Your task to perform on an android device: Show me the alarms in the clock app Image 0: 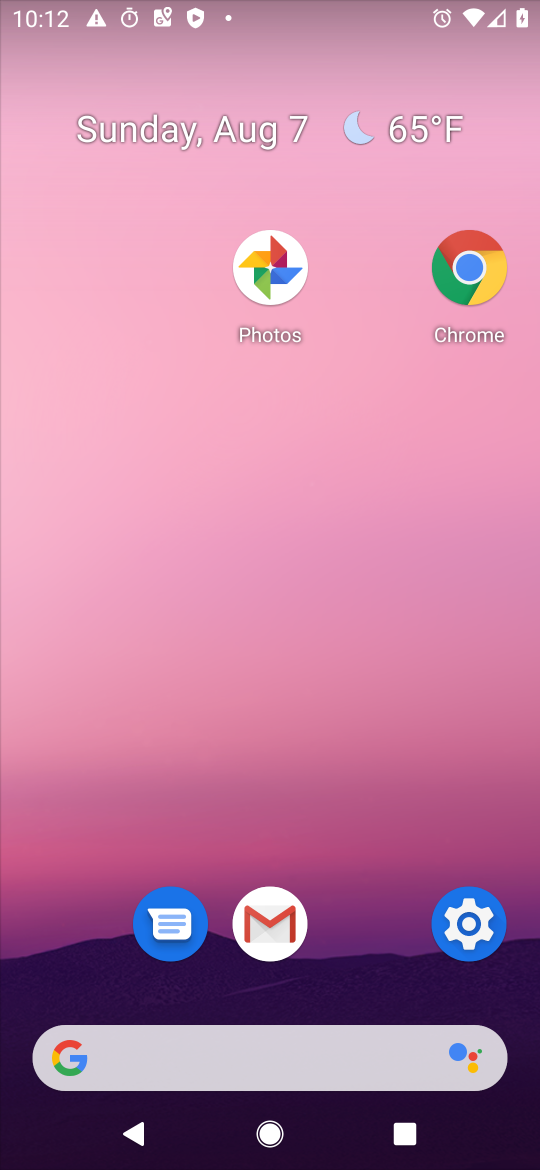
Step 0: press home button
Your task to perform on an android device: Show me the alarms in the clock app Image 1: 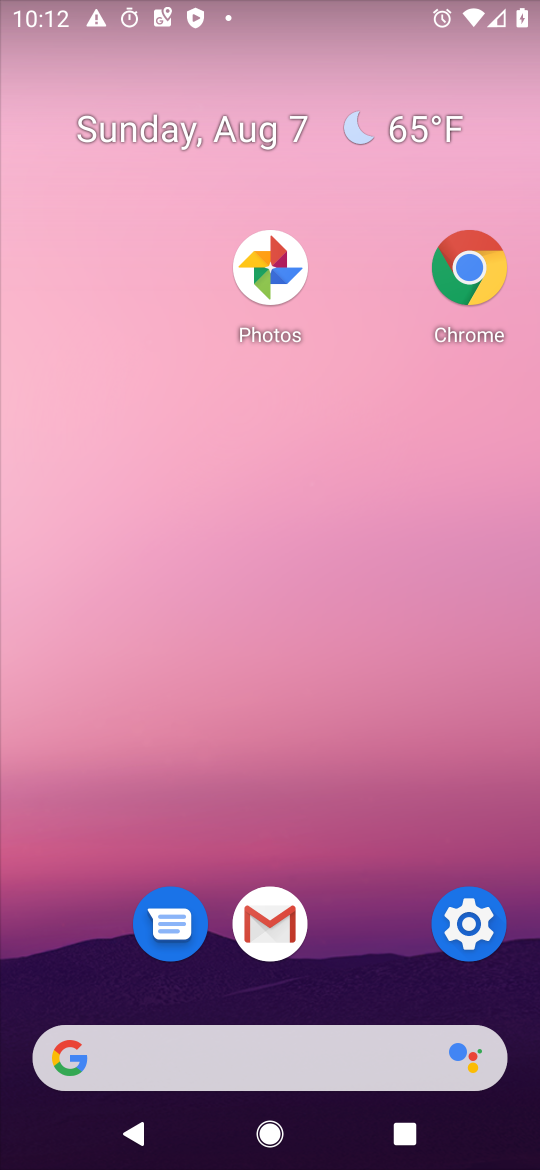
Step 1: drag from (359, 1005) to (323, 89)
Your task to perform on an android device: Show me the alarms in the clock app Image 2: 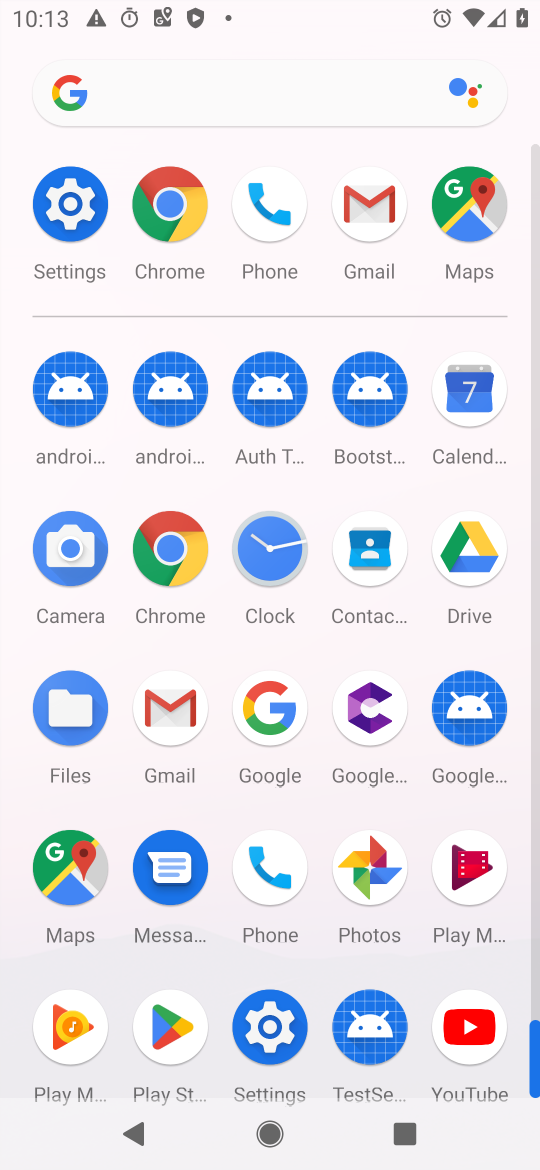
Step 2: click (275, 528)
Your task to perform on an android device: Show me the alarms in the clock app Image 3: 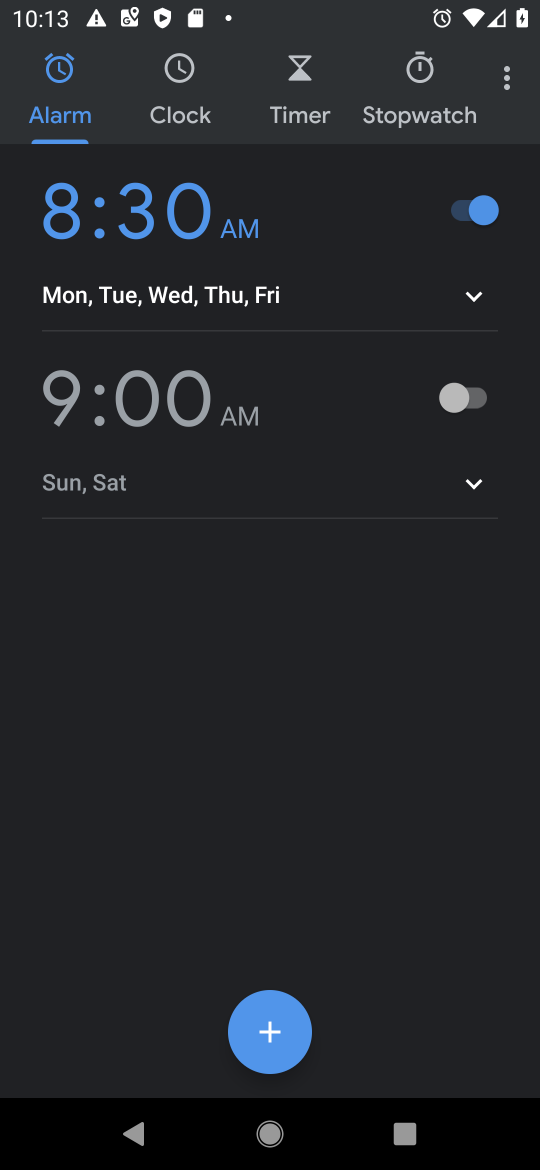
Step 3: click (465, 412)
Your task to perform on an android device: Show me the alarms in the clock app Image 4: 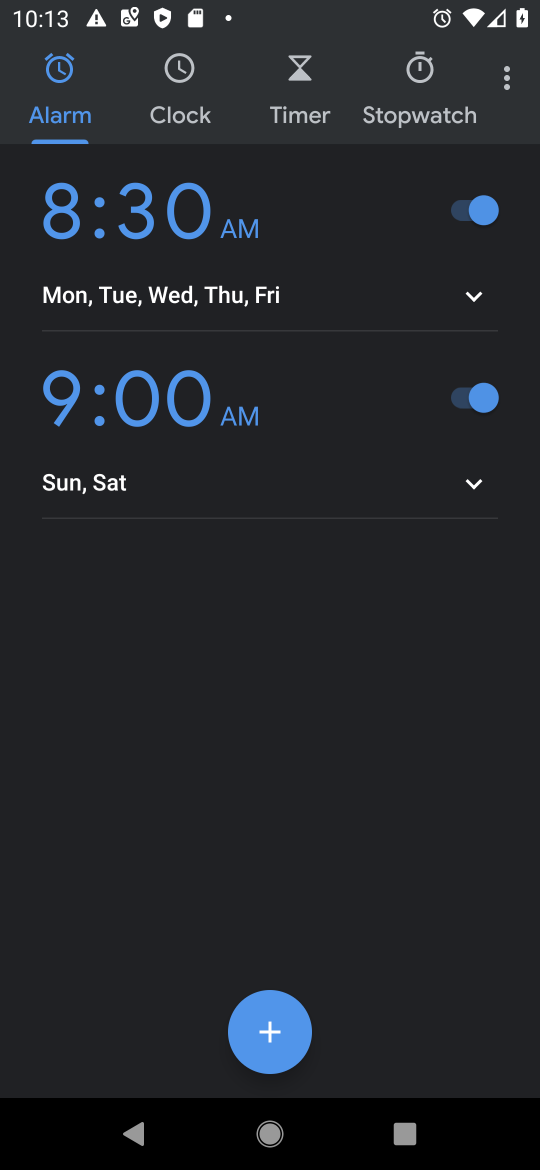
Step 4: task complete